Your task to perform on an android device: Go to Reddit.com Image 0: 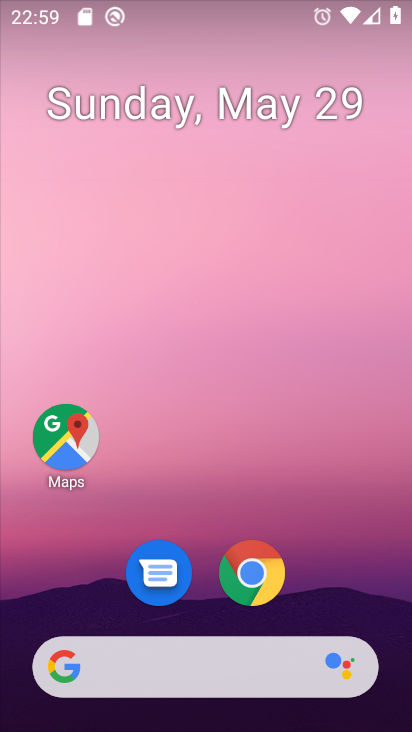
Step 0: click (187, 670)
Your task to perform on an android device: Go to Reddit.com Image 1: 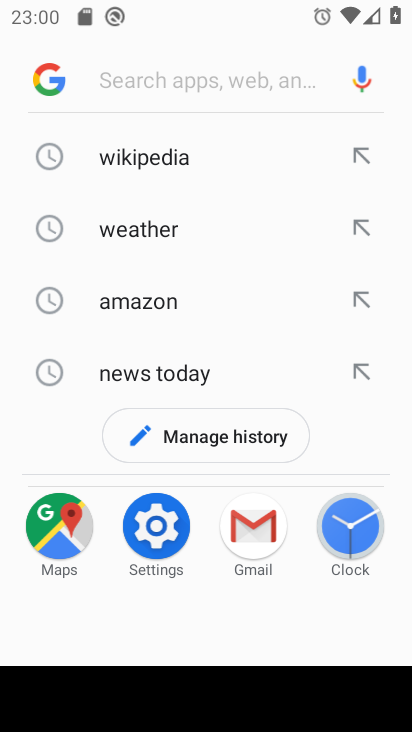
Step 1: type "reddit.com"
Your task to perform on an android device: Go to Reddit.com Image 2: 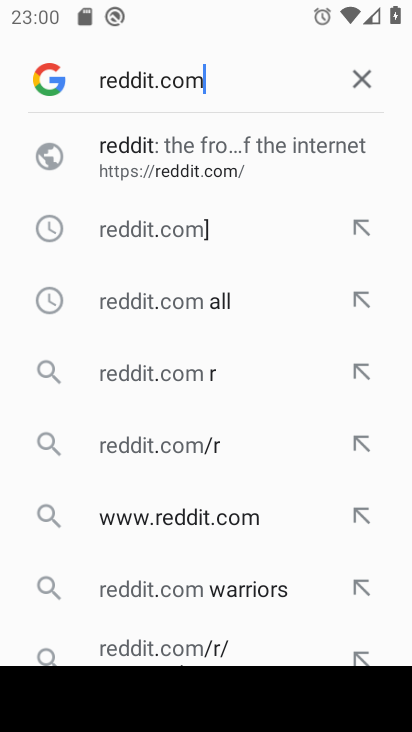
Step 2: click (186, 143)
Your task to perform on an android device: Go to Reddit.com Image 3: 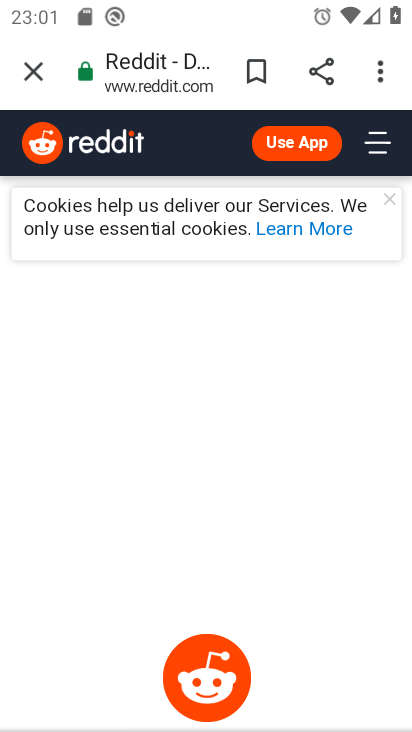
Step 3: task complete